Your task to perform on an android device: Search for the best rated headphones on AliExpress. Image 0: 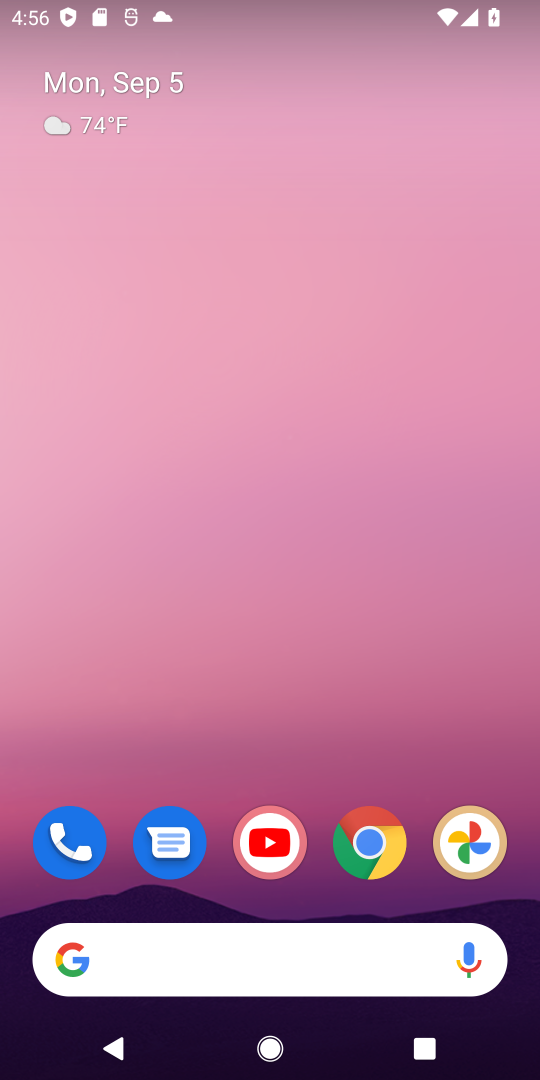
Step 0: click (368, 843)
Your task to perform on an android device: Search for the best rated headphones on AliExpress. Image 1: 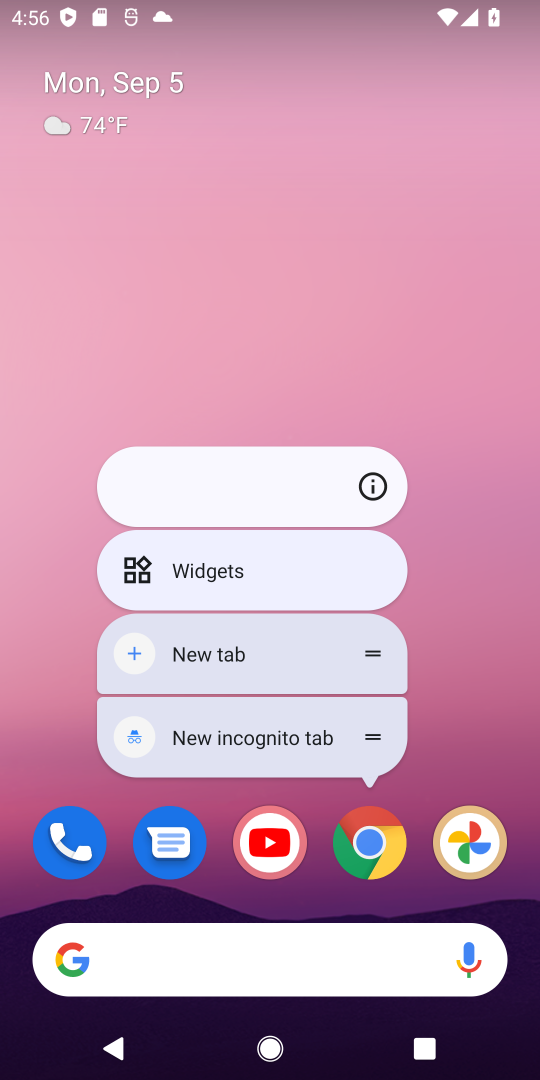
Step 1: click (372, 842)
Your task to perform on an android device: Search for the best rated headphones on AliExpress. Image 2: 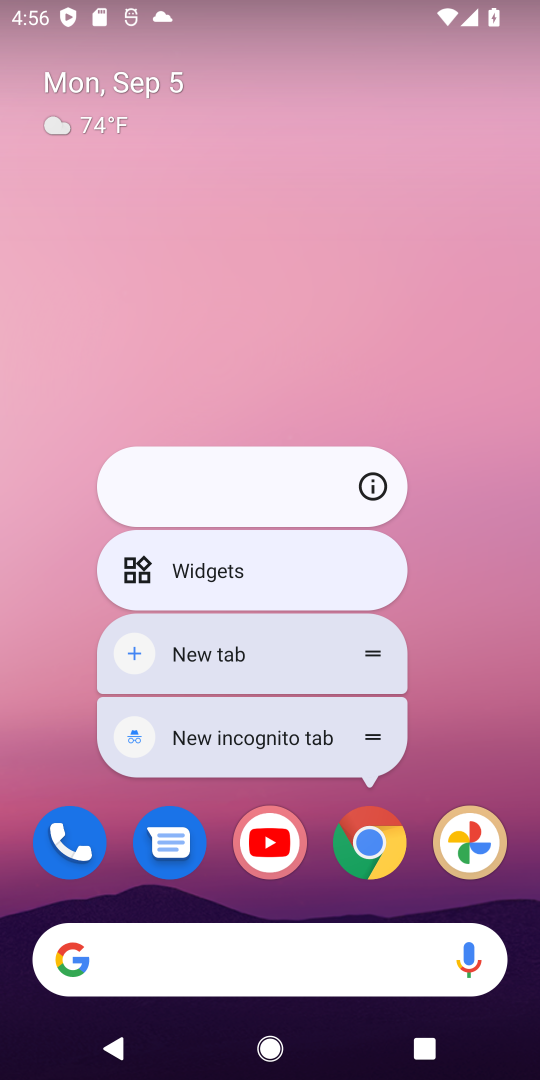
Step 2: click (371, 844)
Your task to perform on an android device: Search for the best rated headphones on AliExpress. Image 3: 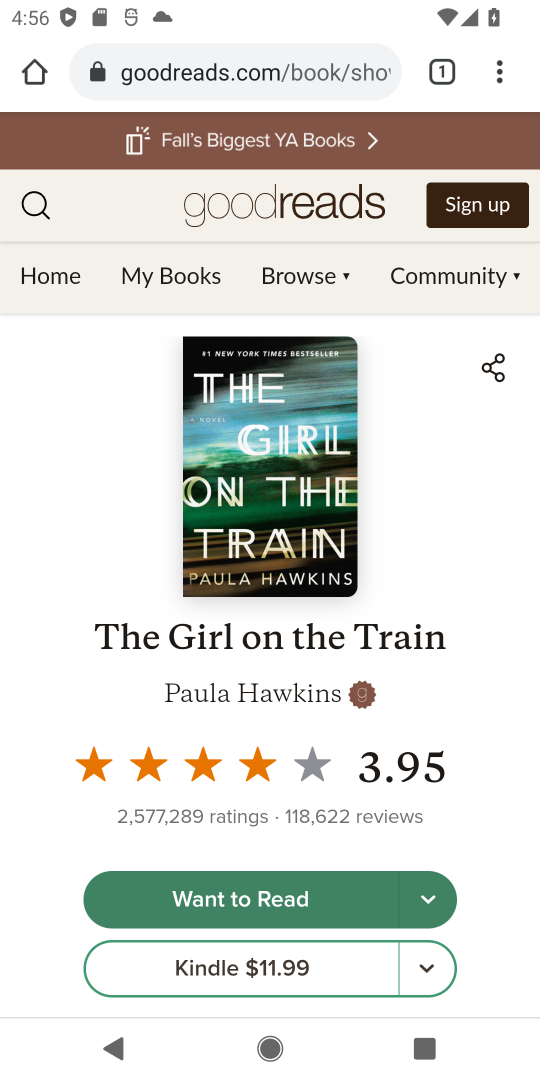
Step 3: click (34, 198)
Your task to perform on an android device: Search for the best rated headphones on AliExpress. Image 4: 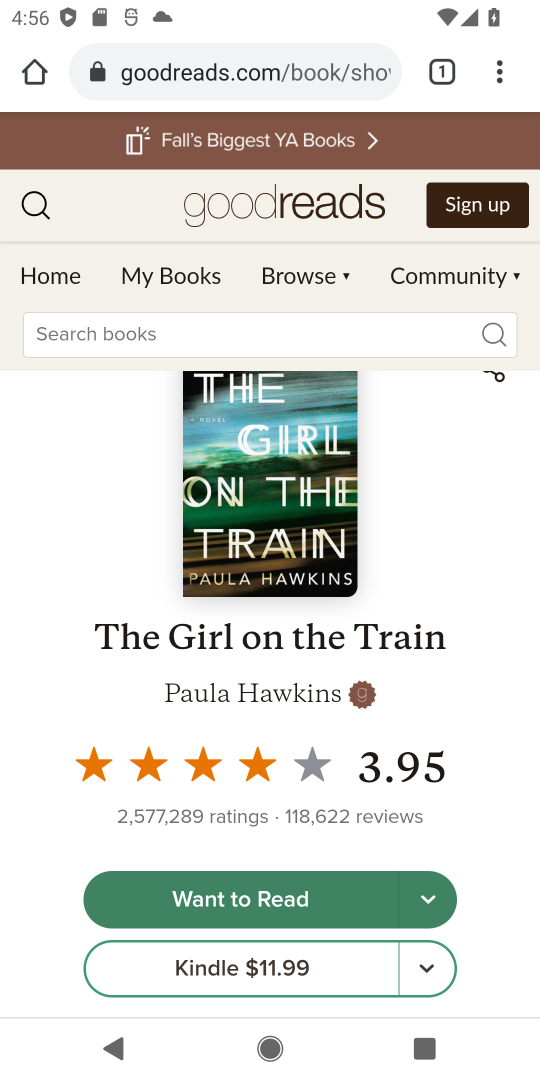
Step 4: click (202, 71)
Your task to perform on an android device: Search for the best rated headphones on AliExpress. Image 5: 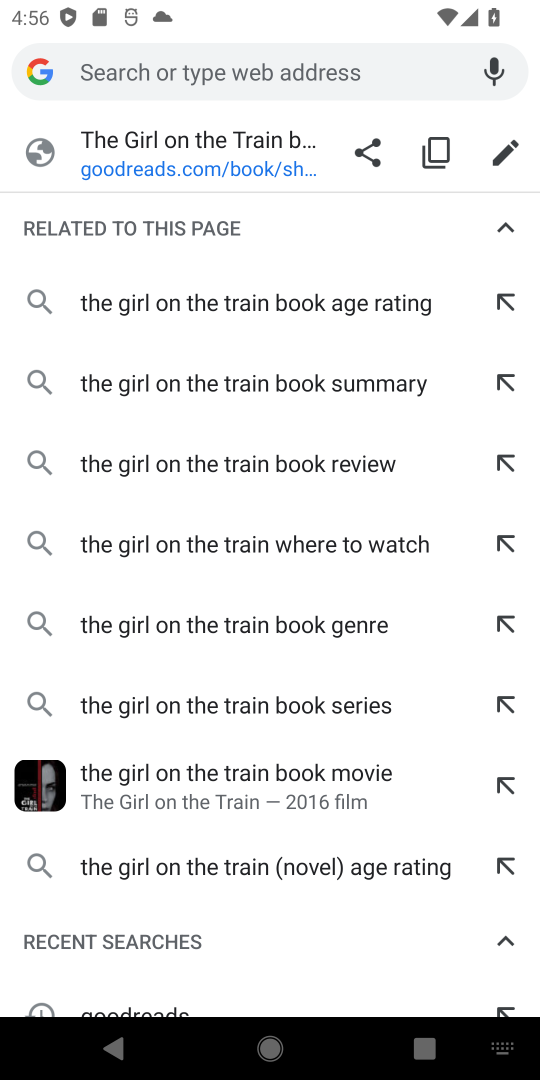
Step 5: type "AliExpress"
Your task to perform on an android device: Search for the best rated headphones on AliExpress. Image 6: 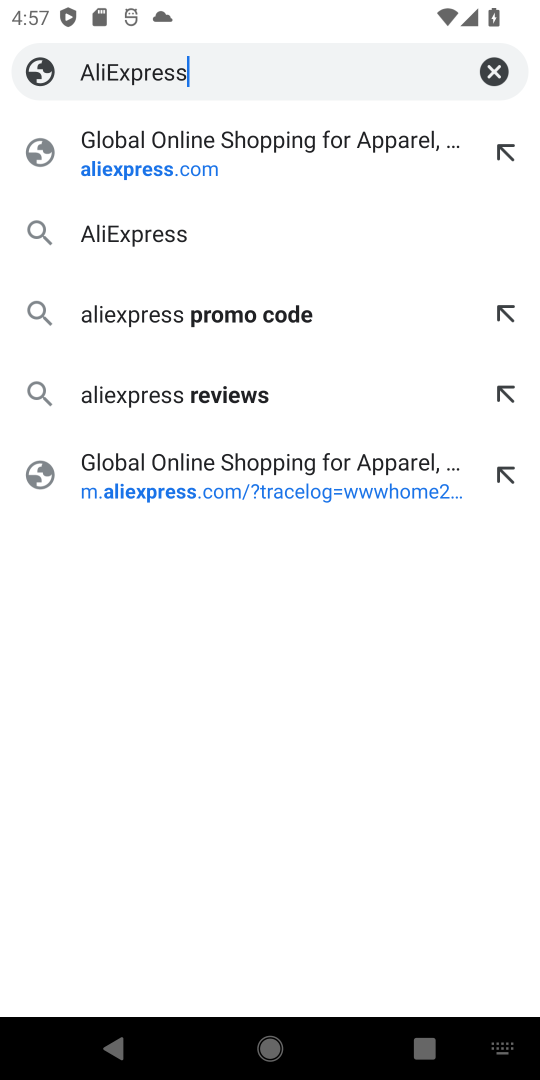
Step 6: click (155, 238)
Your task to perform on an android device: Search for the best rated headphones on AliExpress. Image 7: 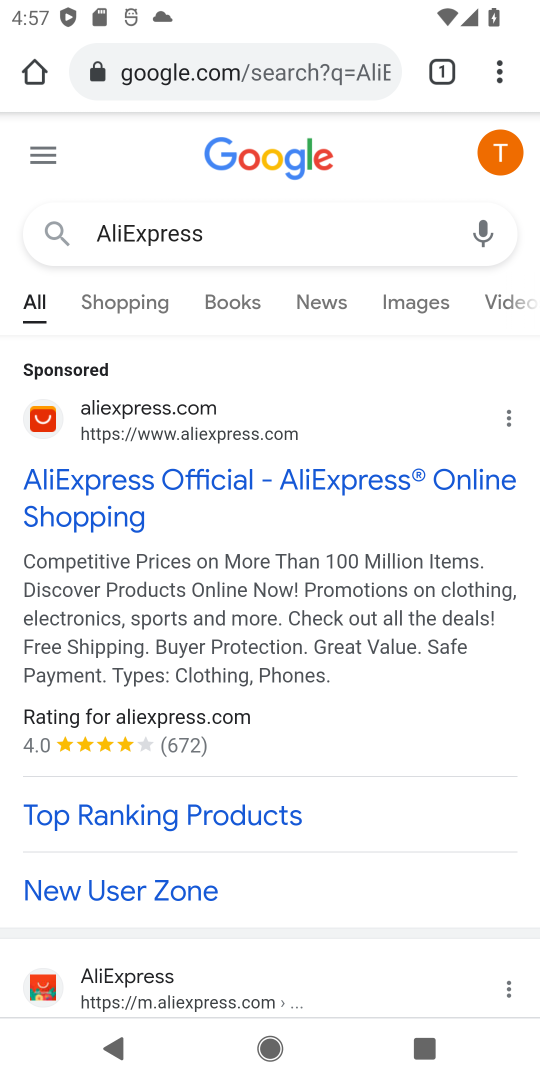
Step 7: drag from (273, 972) to (501, 442)
Your task to perform on an android device: Search for the best rated headphones on AliExpress. Image 8: 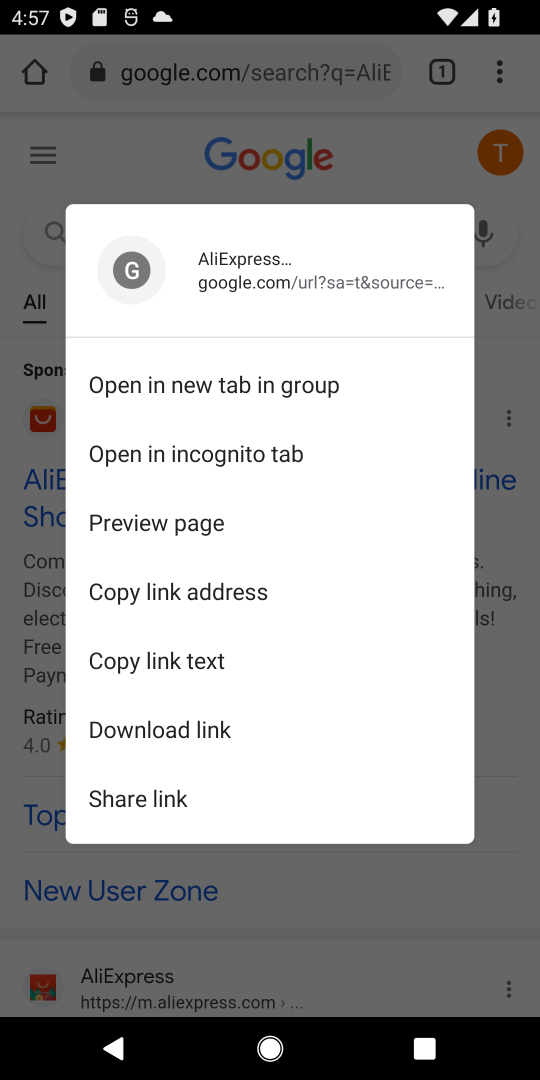
Step 8: click (525, 721)
Your task to perform on an android device: Search for the best rated headphones on AliExpress. Image 9: 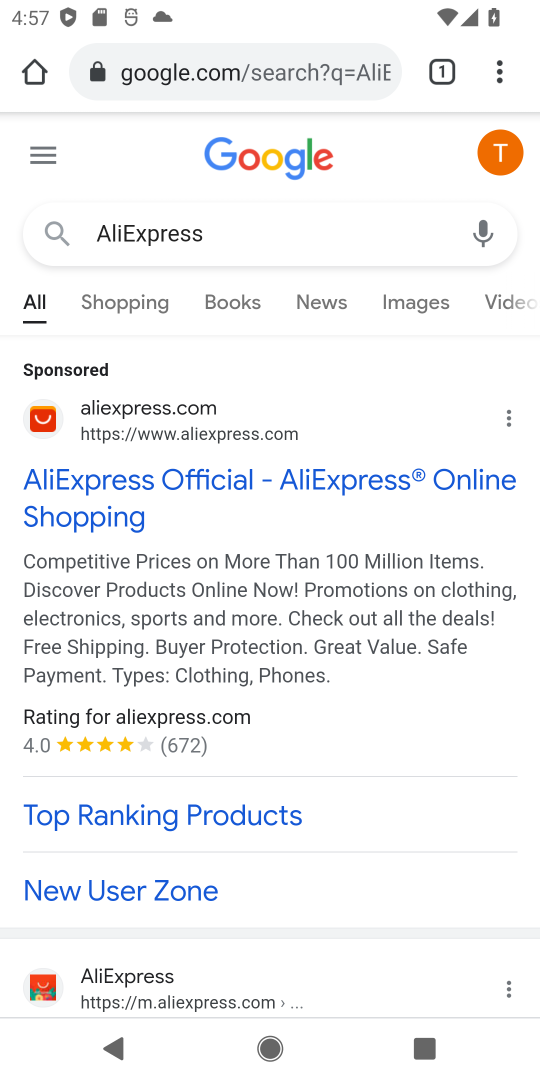
Step 9: drag from (274, 974) to (379, 757)
Your task to perform on an android device: Search for the best rated headphones on AliExpress. Image 10: 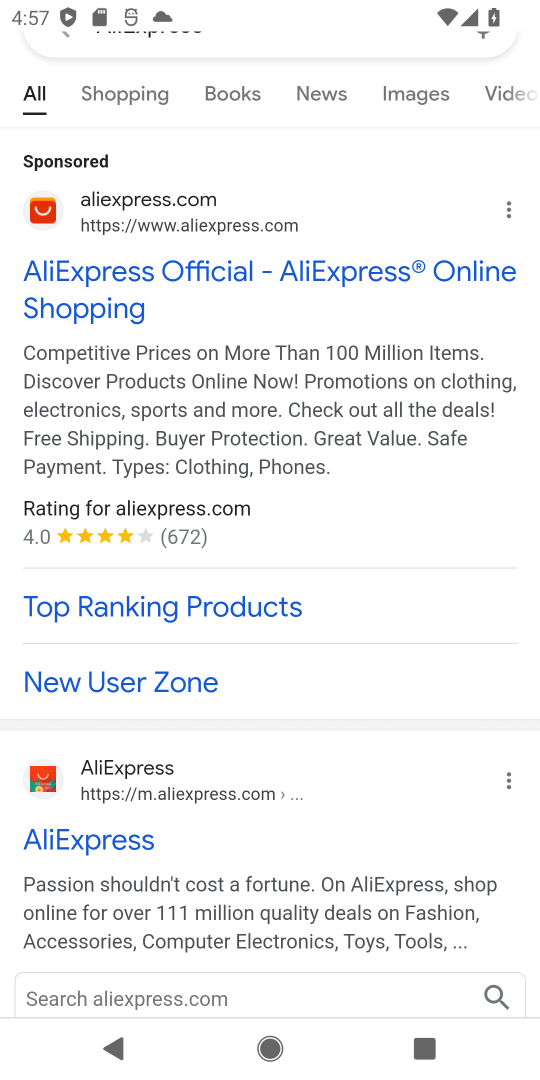
Step 10: click (151, 854)
Your task to perform on an android device: Search for the best rated headphones on AliExpress. Image 11: 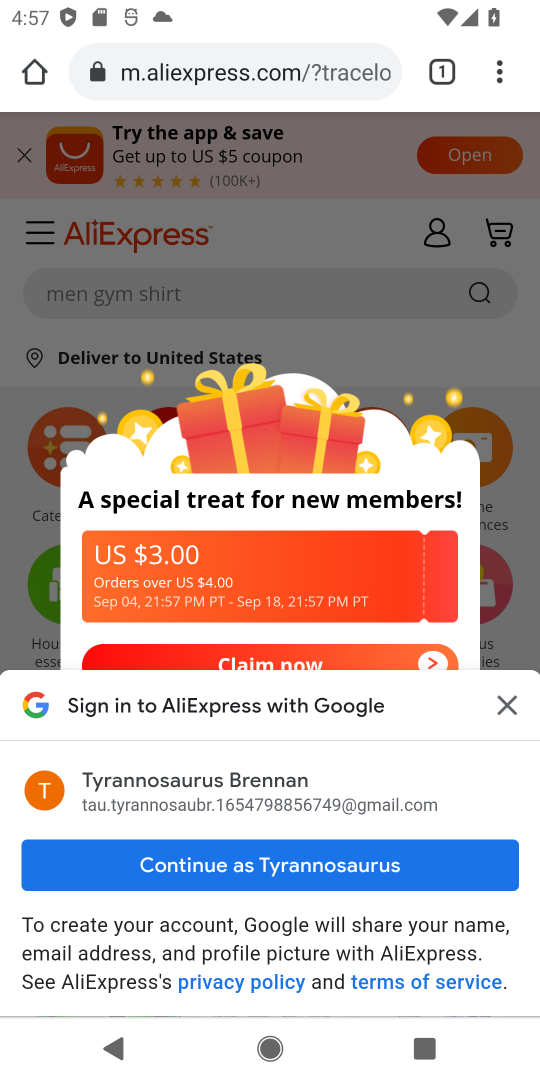
Step 11: click (313, 874)
Your task to perform on an android device: Search for the best rated headphones on AliExpress. Image 12: 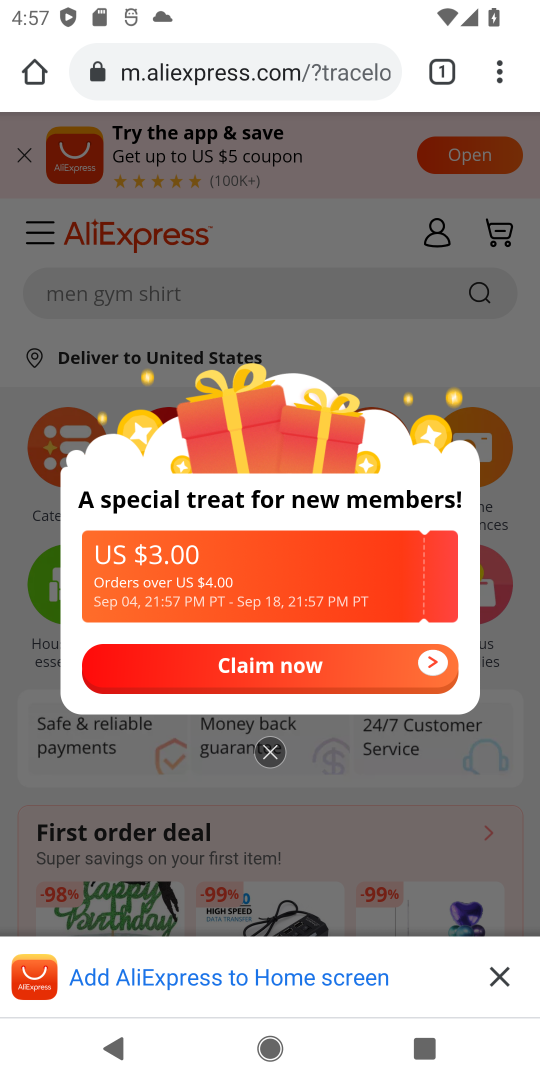
Step 12: click (497, 979)
Your task to perform on an android device: Search for the best rated headphones on AliExpress. Image 13: 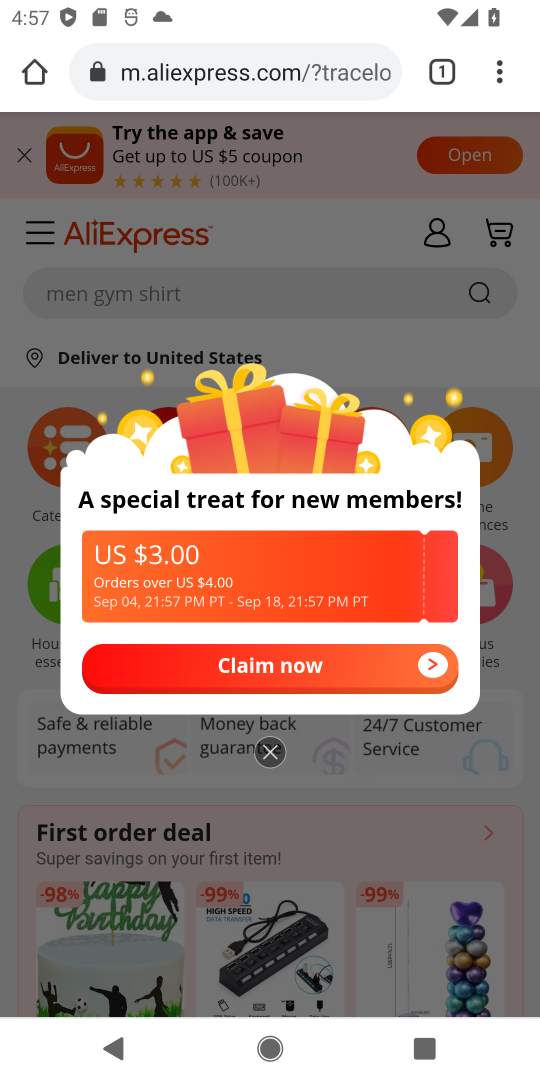
Step 13: click (272, 752)
Your task to perform on an android device: Search for the best rated headphones on AliExpress. Image 14: 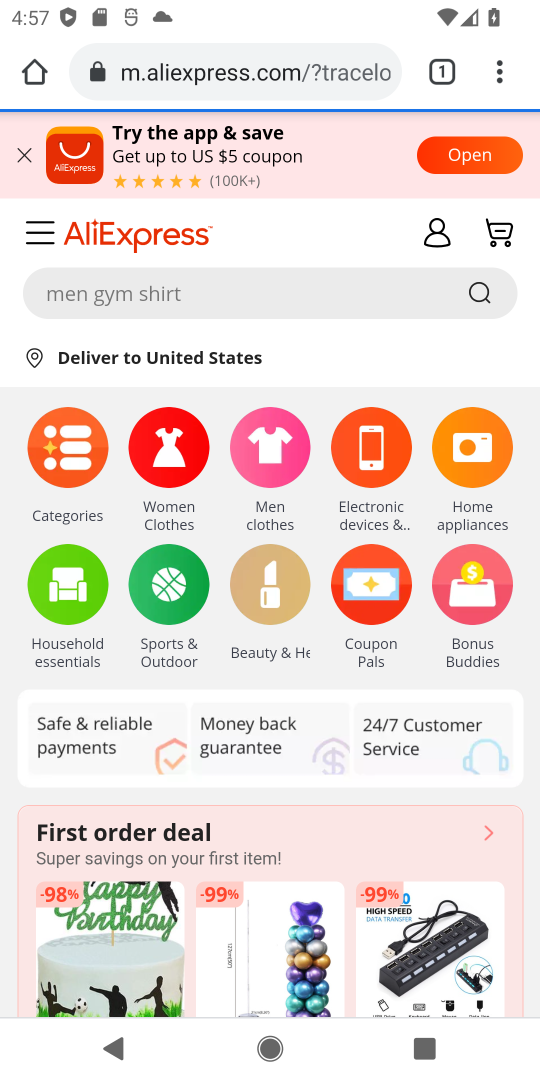
Step 14: click (223, 289)
Your task to perform on an android device: Search for the best rated headphones on AliExpress. Image 15: 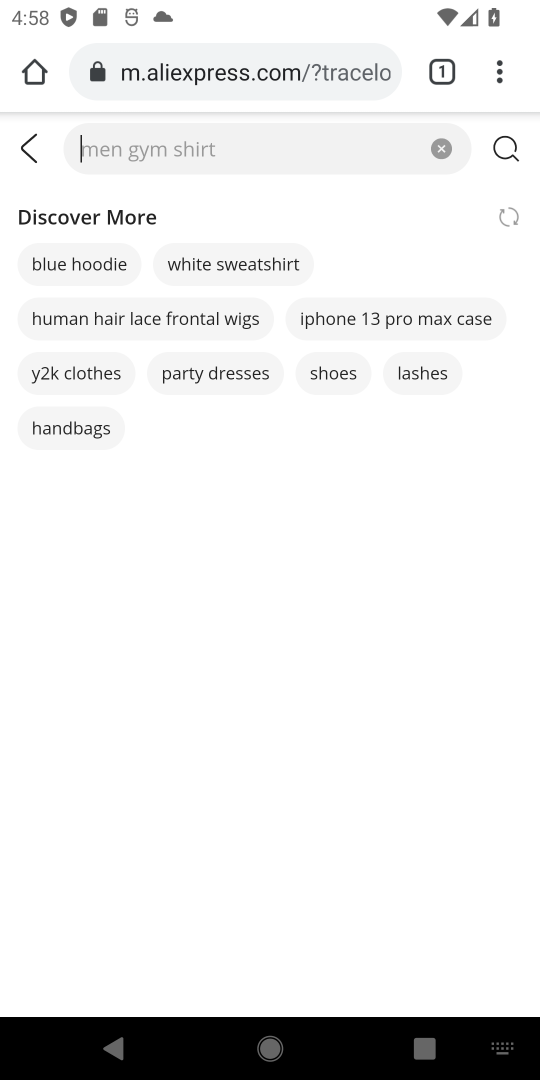
Step 15: type "best rated headphones"
Your task to perform on an android device: Search for the best rated headphones on AliExpress. Image 16: 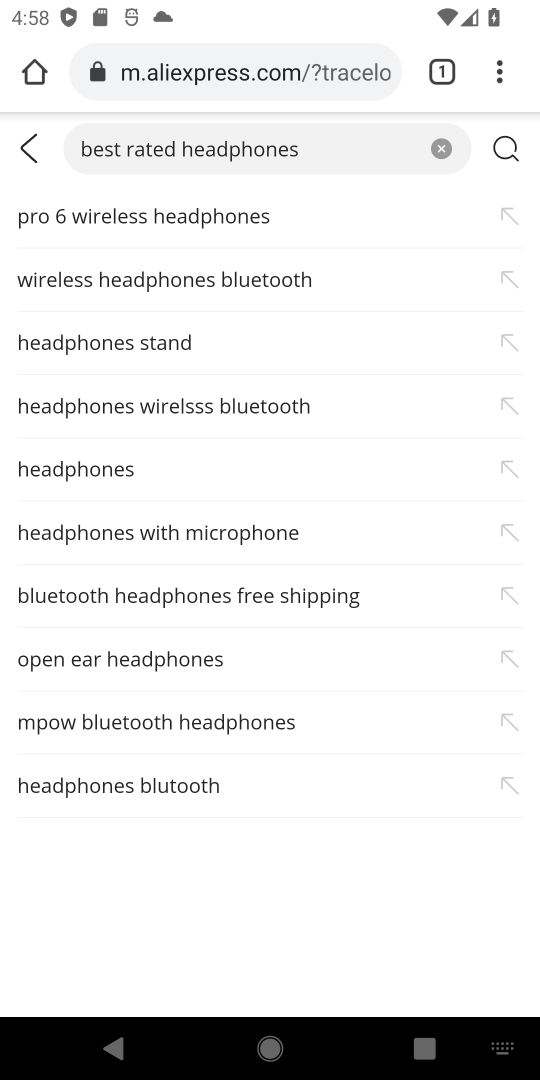
Step 16: click (513, 160)
Your task to perform on an android device: Search for the best rated headphones on AliExpress. Image 17: 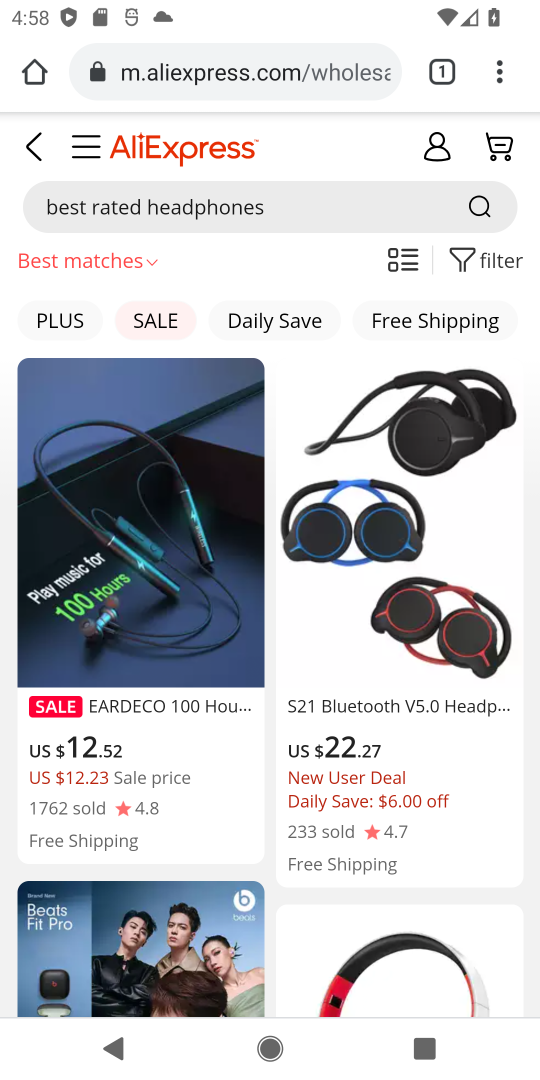
Step 17: task complete